Your task to perform on an android device: What's the weather today? Image 0: 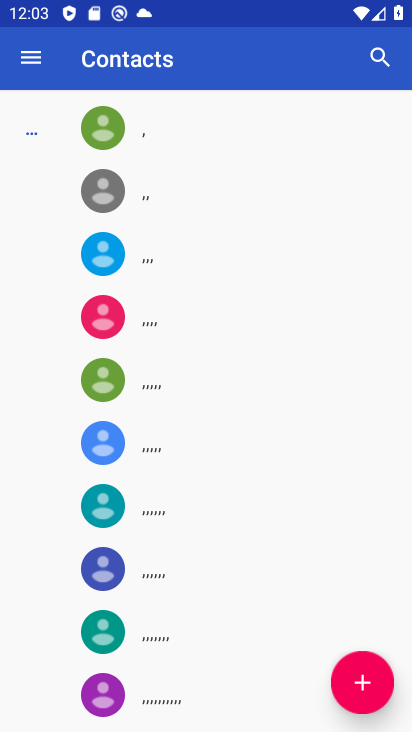
Step 0: press home button
Your task to perform on an android device: What's the weather today? Image 1: 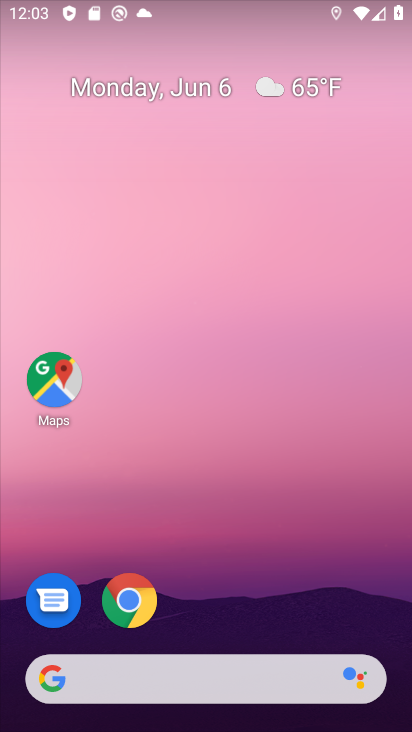
Step 1: click (296, 80)
Your task to perform on an android device: What's the weather today? Image 2: 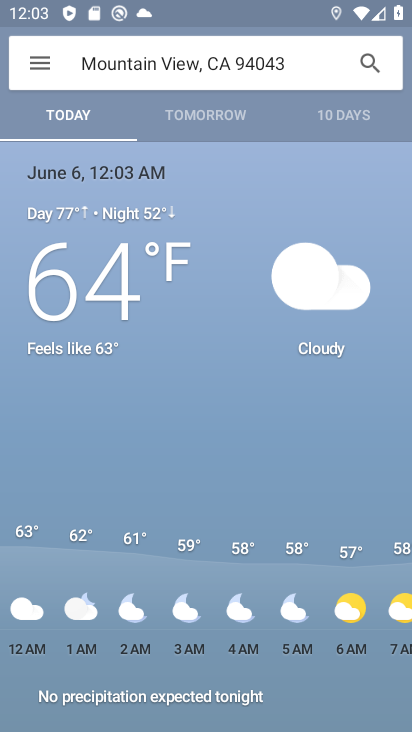
Step 2: task complete